Your task to perform on an android device: Open Google Chrome and click the shortcut for Amazon.com Image 0: 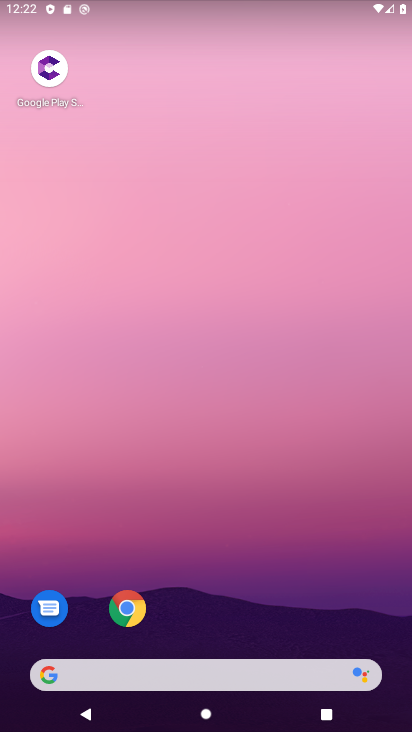
Step 0: click (118, 609)
Your task to perform on an android device: Open Google Chrome and click the shortcut for Amazon.com Image 1: 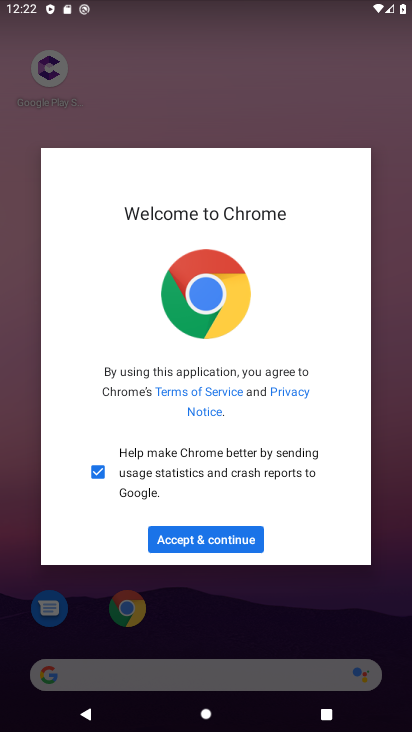
Step 1: click (190, 531)
Your task to perform on an android device: Open Google Chrome and click the shortcut for Amazon.com Image 2: 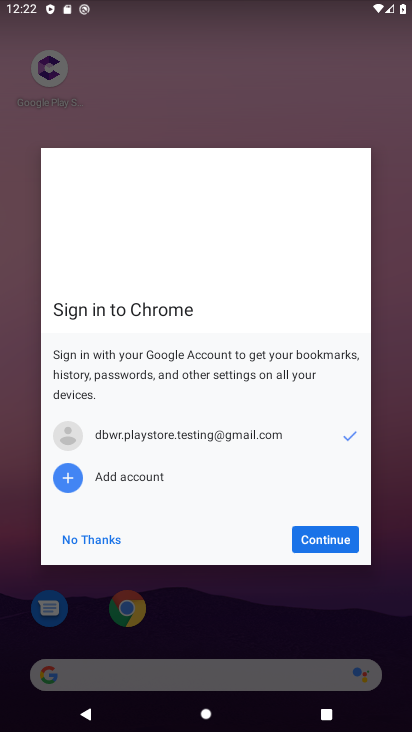
Step 2: click (319, 542)
Your task to perform on an android device: Open Google Chrome and click the shortcut for Amazon.com Image 3: 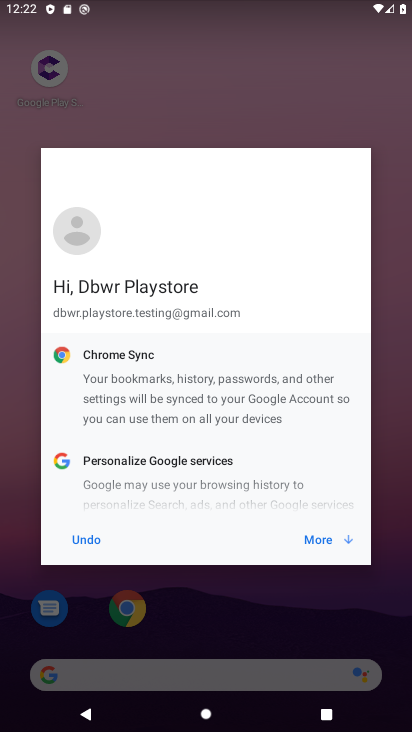
Step 3: click (325, 536)
Your task to perform on an android device: Open Google Chrome and click the shortcut for Amazon.com Image 4: 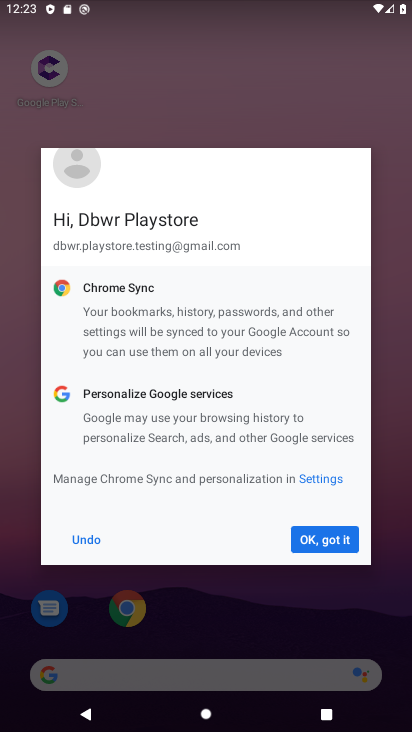
Step 4: click (311, 537)
Your task to perform on an android device: Open Google Chrome and click the shortcut for Amazon.com Image 5: 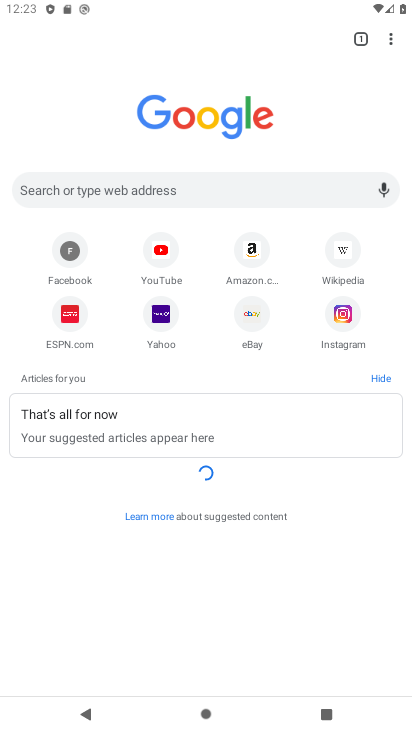
Step 5: click (247, 252)
Your task to perform on an android device: Open Google Chrome and click the shortcut for Amazon.com Image 6: 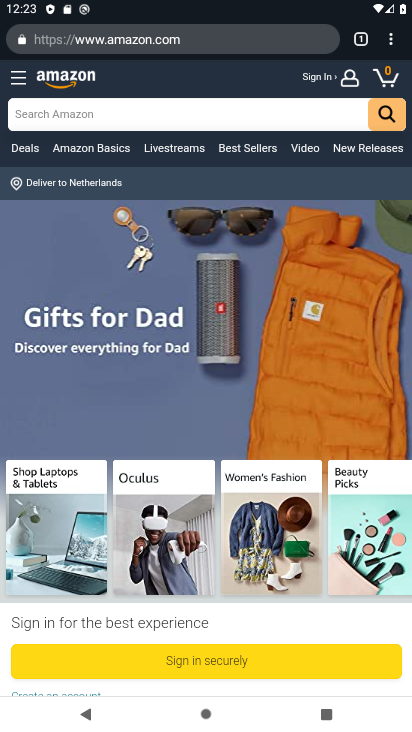
Step 6: task complete